Your task to perform on an android device: Show me popular videos on Youtube Image 0: 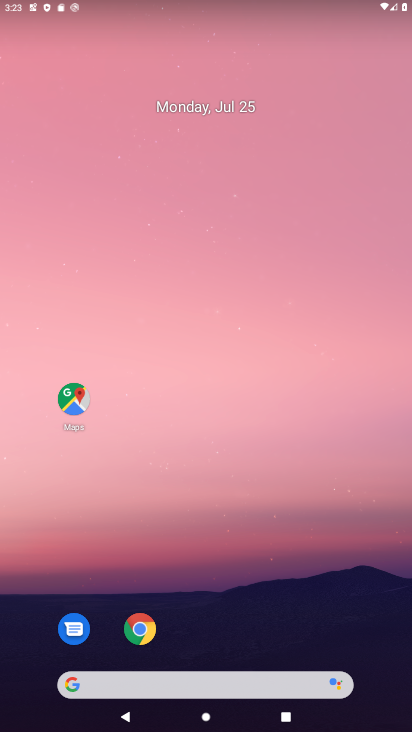
Step 0: drag from (250, 703) to (270, 7)
Your task to perform on an android device: Show me popular videos on Youtube Image 1: 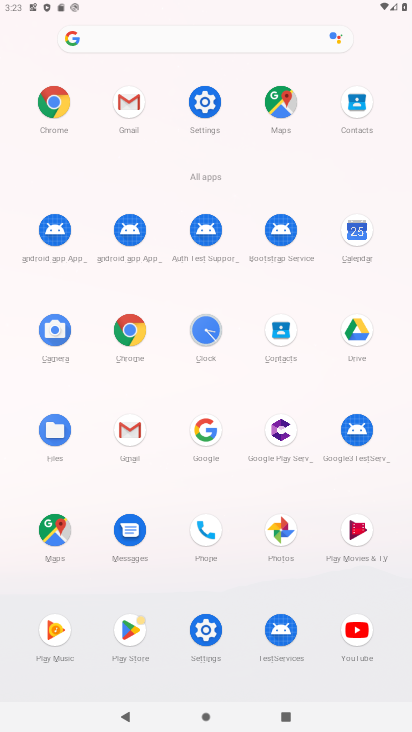
Step 1: click (354, 626)
Your task to perform on an android device: Show me popular videos on Youtube Image 2: 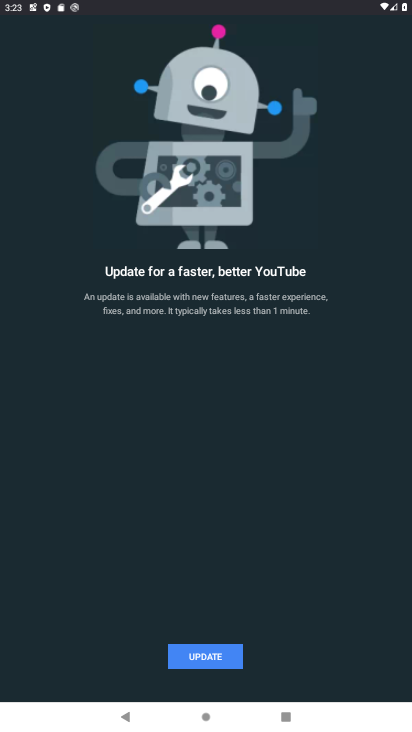
Step 2: click (226, 651)
Your task to perform on an android device: Show me popular videos on Youtube Image 3: 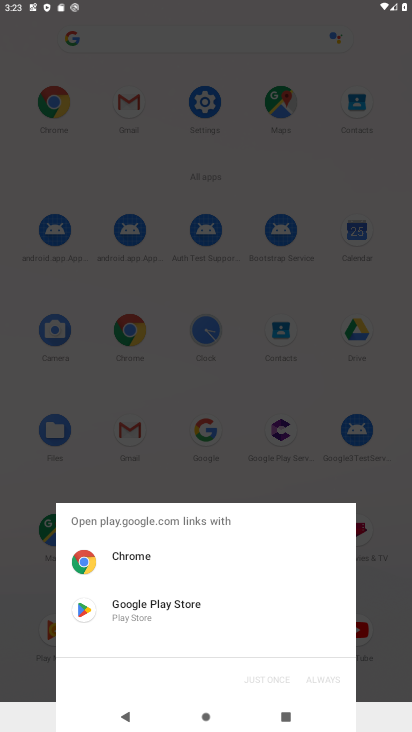
Step 3: click (154, 606)
Your task to perform on an android device: Show me popular videos on Youtube Image 4: 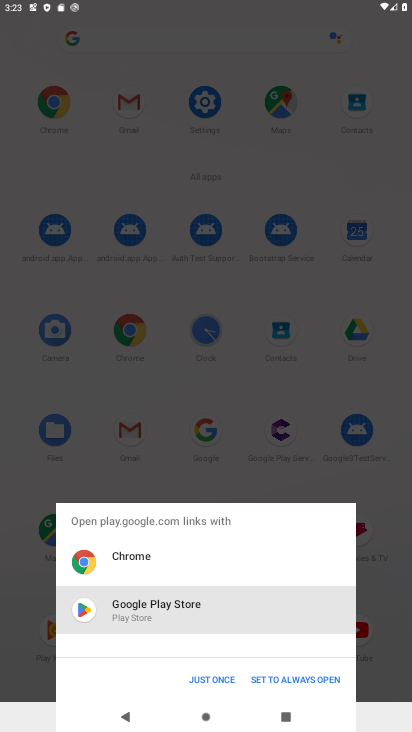
Step 4: click (220, 674)
Your task to perform on an android device: Show me popular videos on Youtube Image 5: 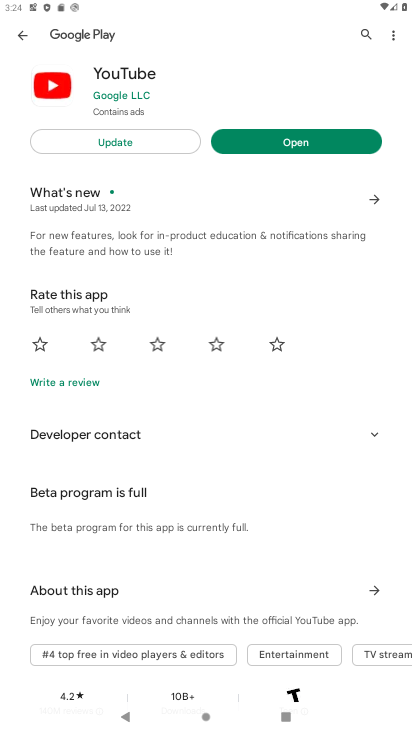
Step 5: click (108, 138)
Your task to perform on an android device: Show me popular videos on Youtube Image 6: 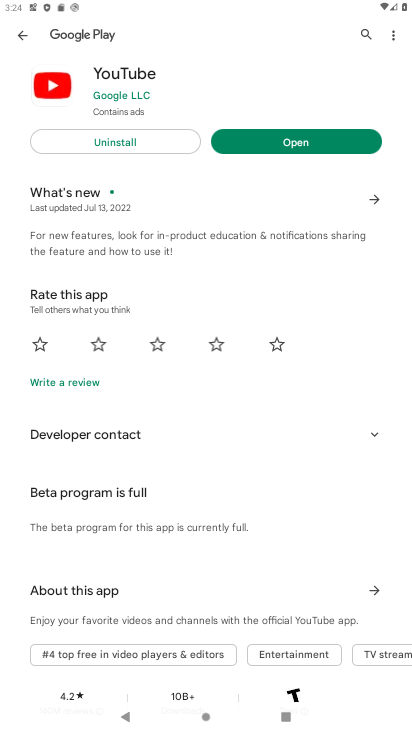
Step 6: click (324, 145)
Your task to perform on an android device: Show me popular videos on Youtube Image 7: 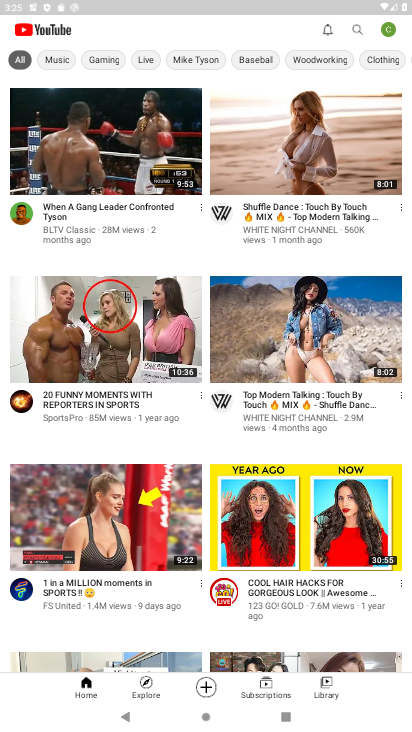
Step 7: task complete